Your task to perform on an android device: Open notification settings Image 0: 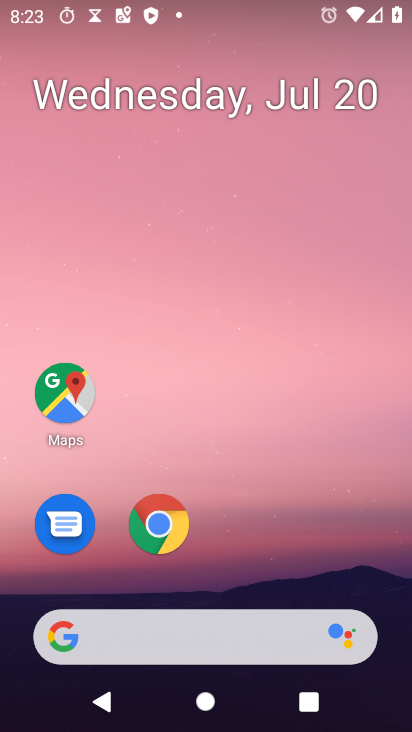
Step 0: drag from (197, 637) to (256, 112)
Your task to perform on an android device: Open notification settings Image 1: 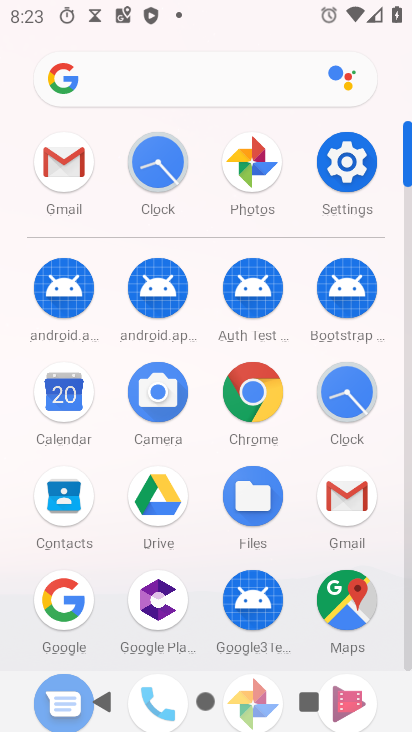
Step 1: click (346, 170)
Your task to perform on an android device: Open notification settings Image 2: 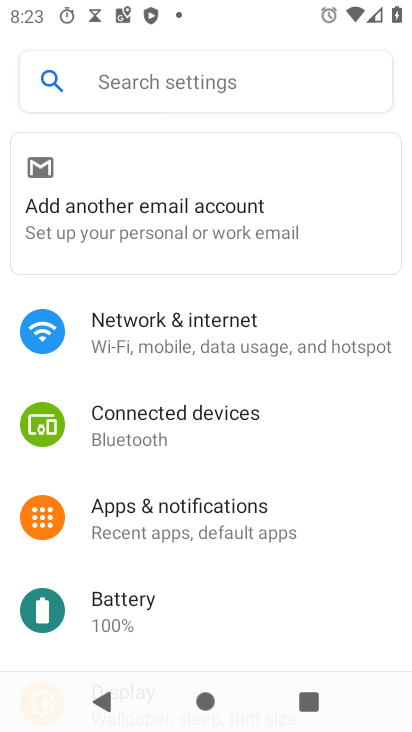
Step 2: click (178, 510)
Your task to perform on an android device: Open notification settings Image 3: 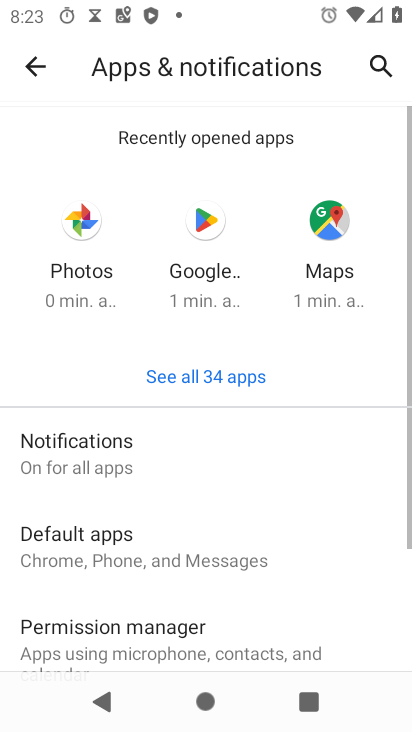
Step 3: drag from (241, 507) to (256, 178)
Your task to perform on an android device: Open notification settings Image 4: 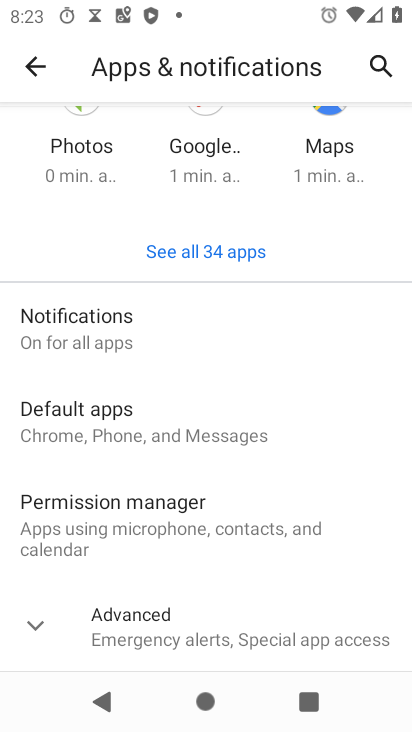
Step 4: click (80, 328)
Your task to perform on an android device: Open notification settings Image 5: 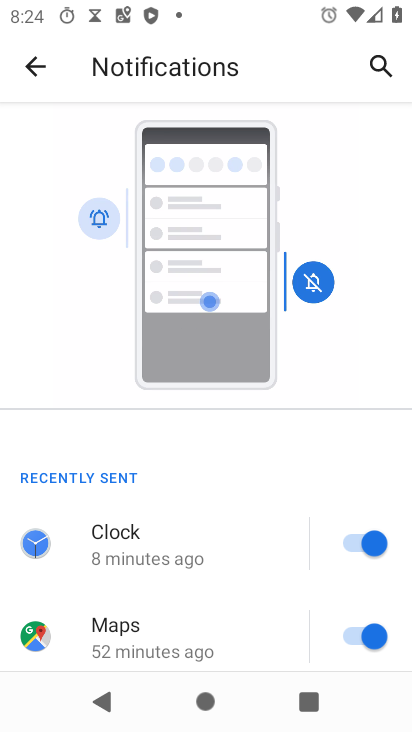
Step 5: task complete